Your task to perform on an android device: refresh tabs in the chrome app Image 0: 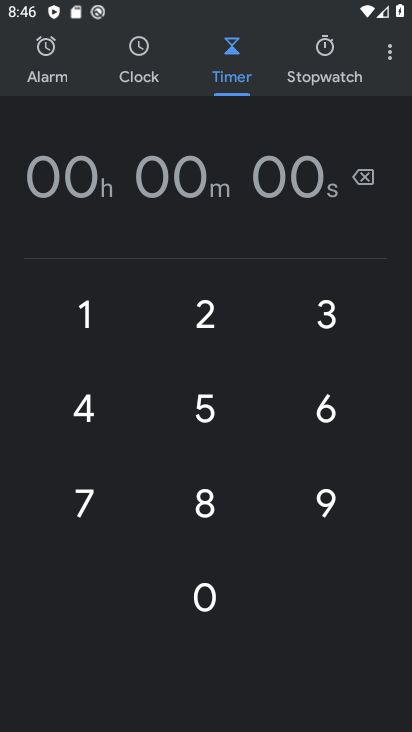
Step 0: press home button
Your task to perform on an android device: refresh tabs in the chrome app Image 1: 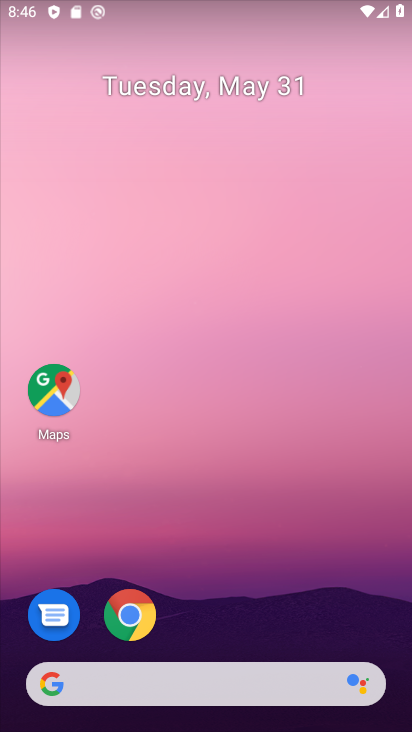
Step 1: click (144, 619)
Your task to perform on an android device: refresh tabs in the chrome app Image 2: 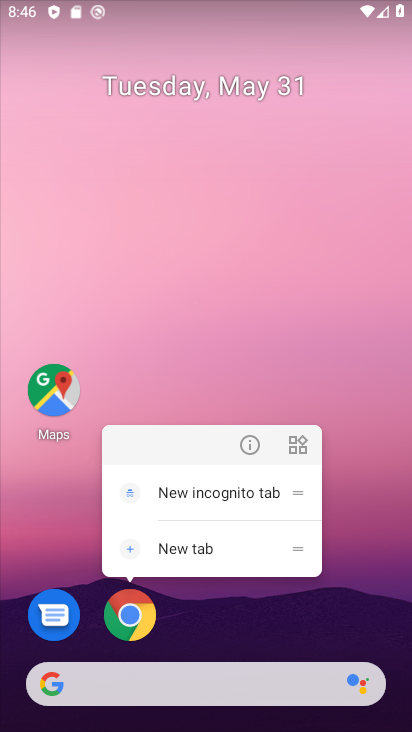
Step 2: click (133, 619)
Your task to perform on an android device: refresh tabs in the chrome app Image 3: 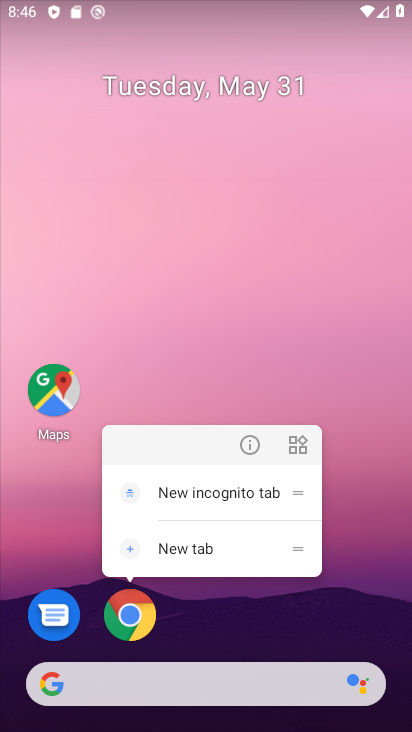
Step 3: click (126, 620)
Your task to perform on an android device: refresh tabs in the chrome app Image 4: 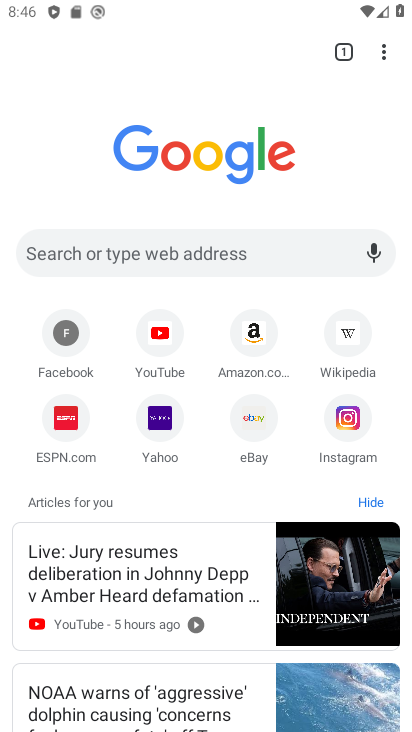
Step 4: click (382, 57)
Your task to perform on an android device: refresh tabs in the chrome app Image 5: 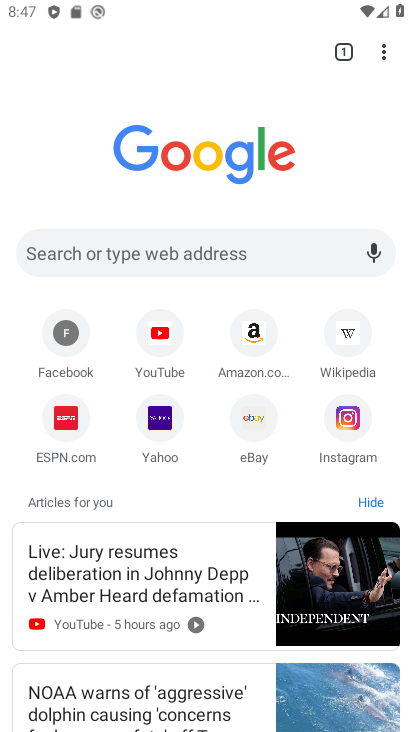
Step 5: click (381, 53)
Your task to perform on an android device: refresh tabs in the chrome app Image 6: 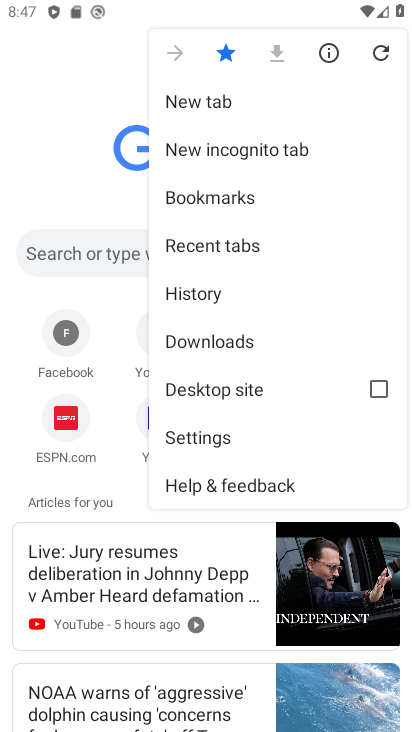
Step 6: click (382, 65)
Your task to perform on an android device: refresh tabs in the chrome app Image 7: 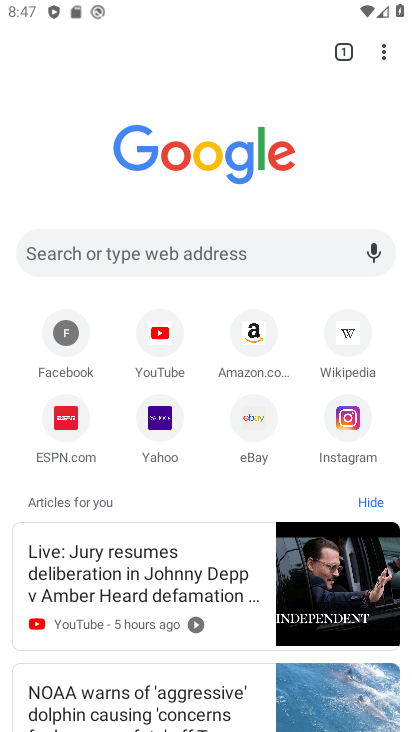
Step 7: click (383, 54)
Your task to perform on an android device: refresh tabs in the chrome app Image 8: 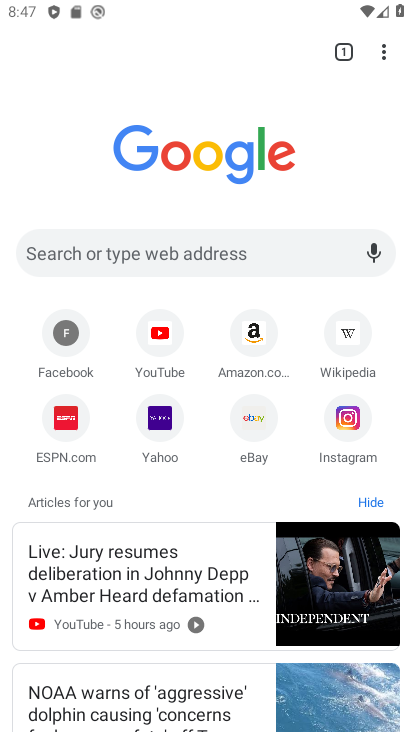
Step 8: click (384, 59)
Your task to perform on an android device: refresh tabs in the chrome app Image 9: 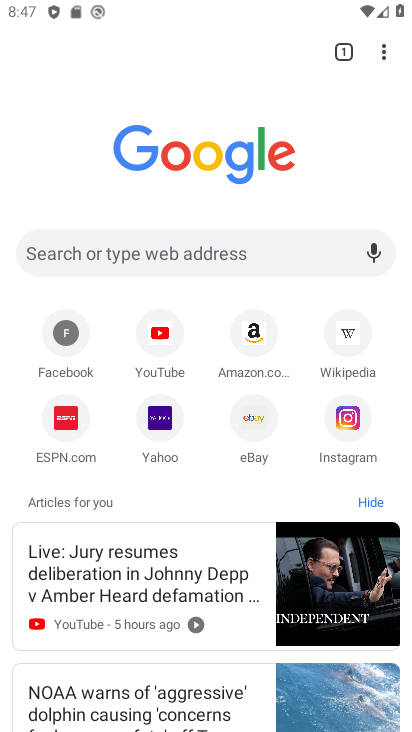
Step 9: task complete